Your task to perform on an android device: turn off location history Image 0: 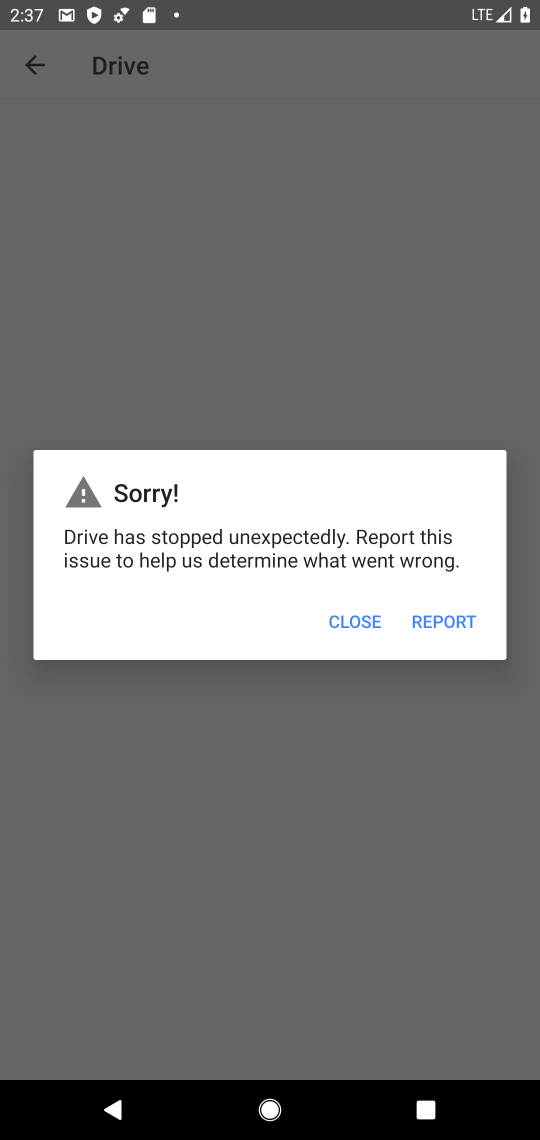
Step 0: click (444, 300)
Your task to perform on an android device: turn off location history Image 1: 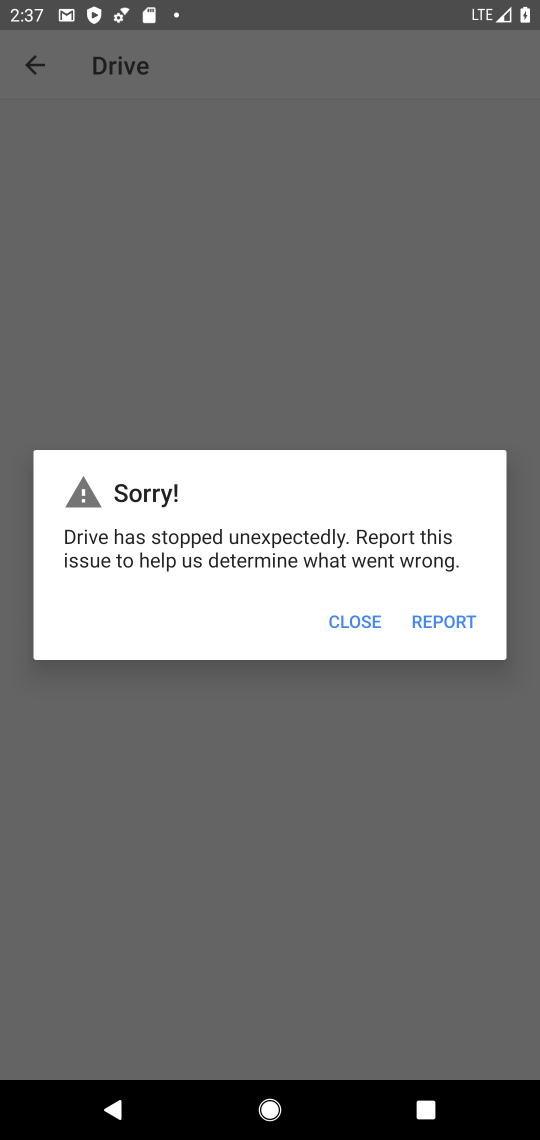
Step 1: click (335, 611)
Your task to perform on an android device: turn off location history Image 2: 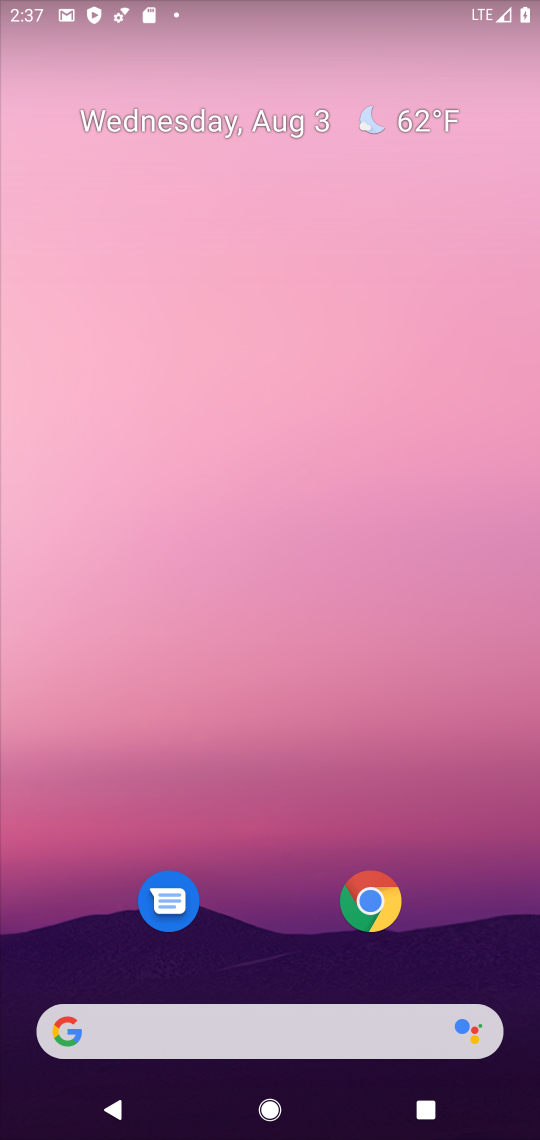
Step 2: drag from (283, 562) to (305, 77)
Your task to perform on an android device: turn off location history Image 3: 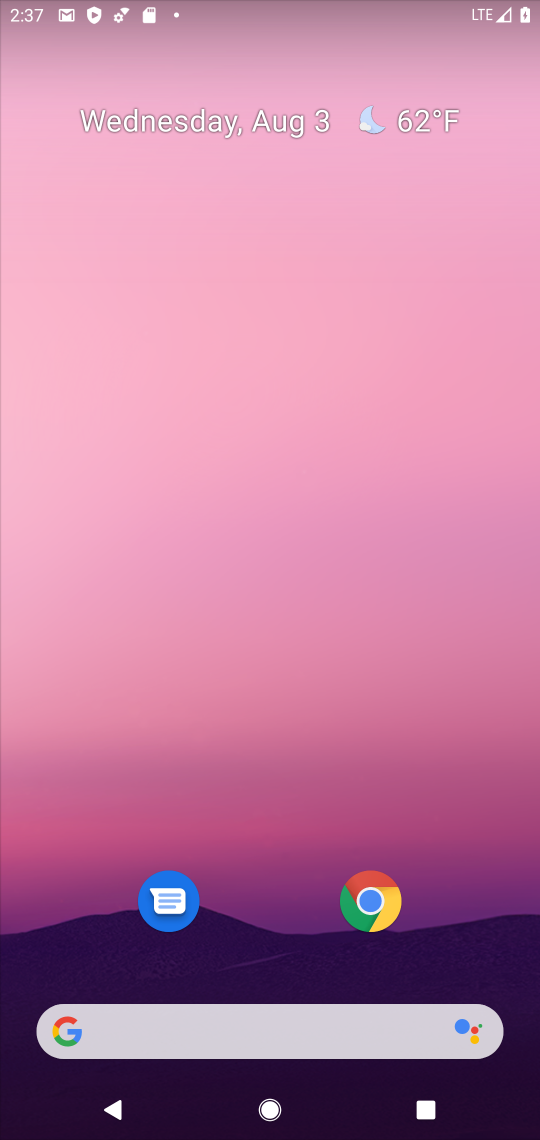
Step 3: drag from (259, 931) to (289, 110)
Your task to perform on an android device: turn off location history Image 4: 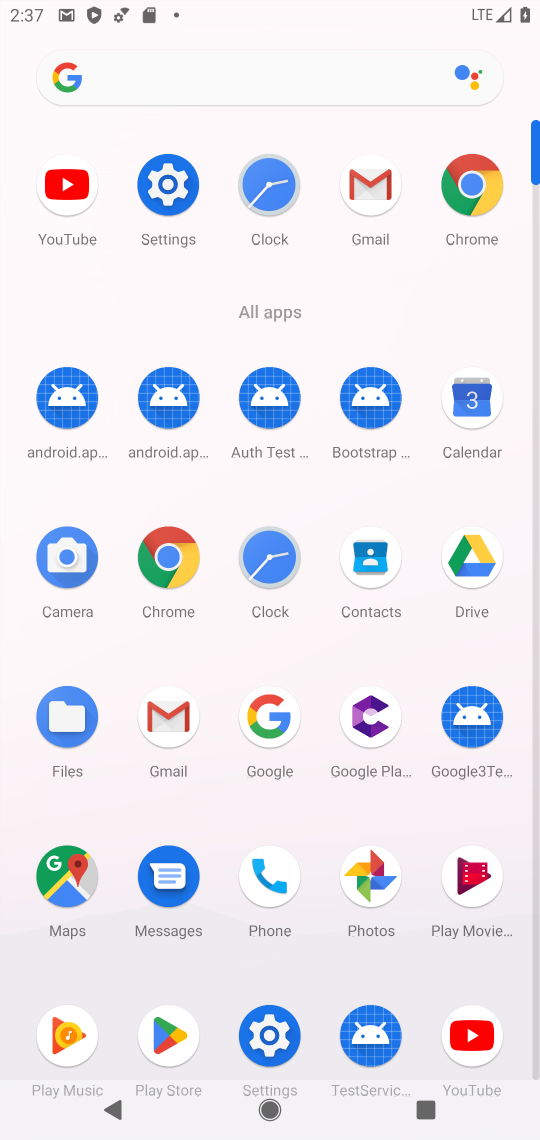
Step 4: click (161, 191)
Your task to perform on an android device: turn off location history Image 5: 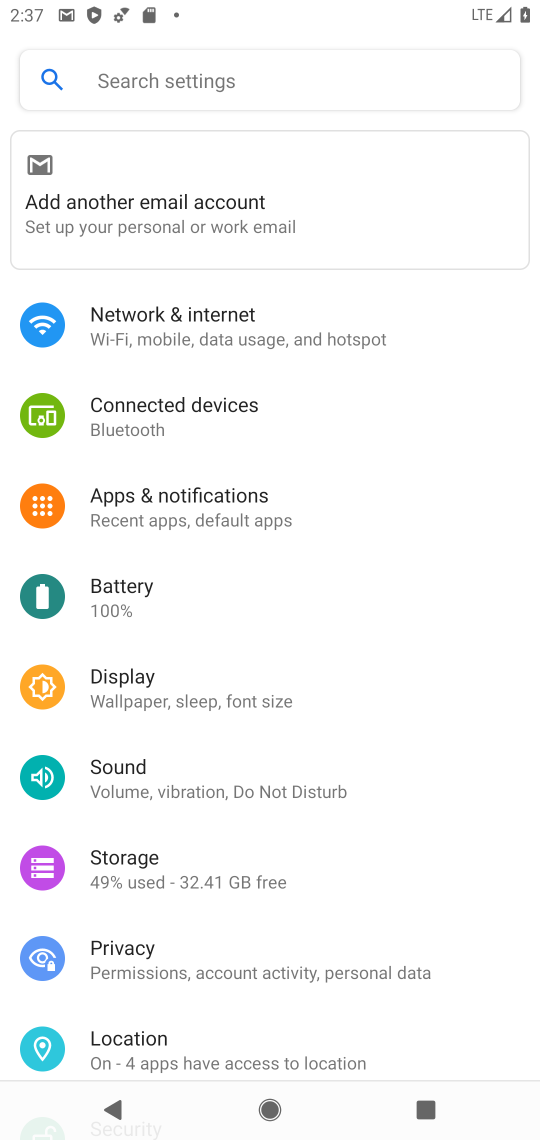
Step 5: click (163, 1028)
Your task to perform on an android device: turn off location history Image 6: 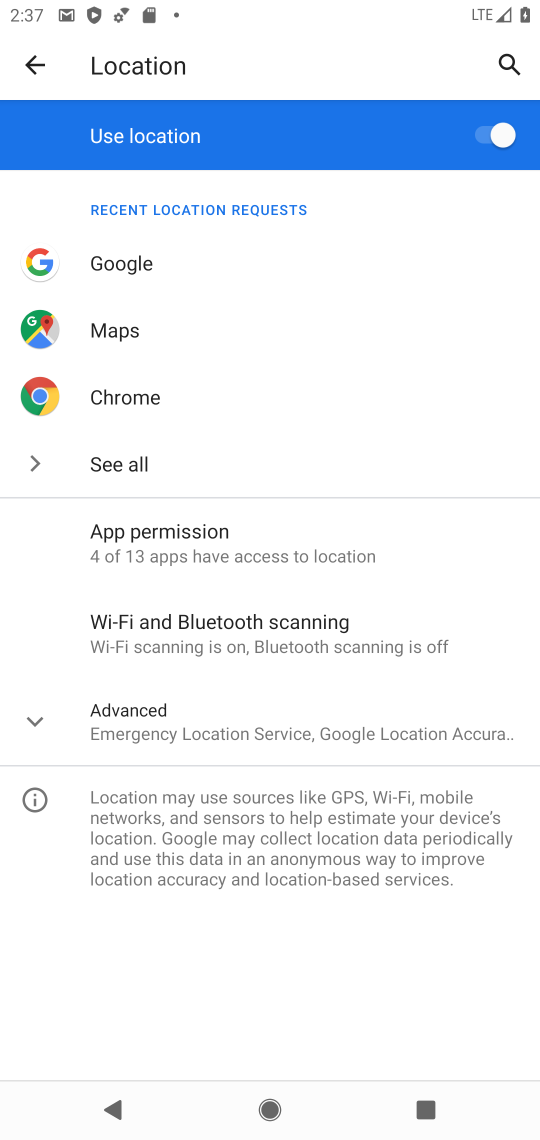
Step 6: click (137, 696)
Your task to perform on an android device: turn off location history Image 7: 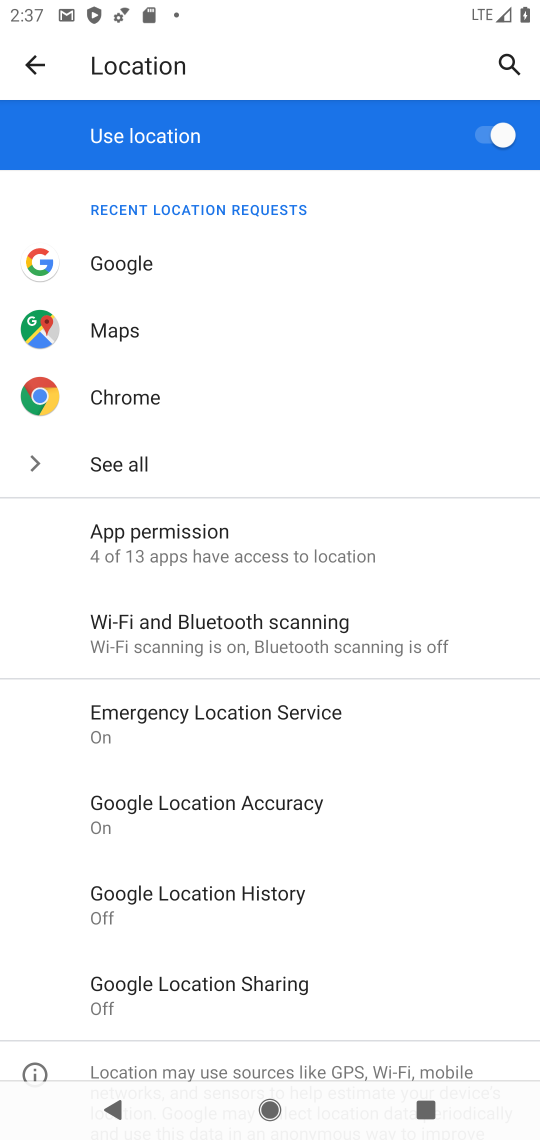
Step 7: click (202, 913)
Your task to perform on an android device: turn off location history Image 8: 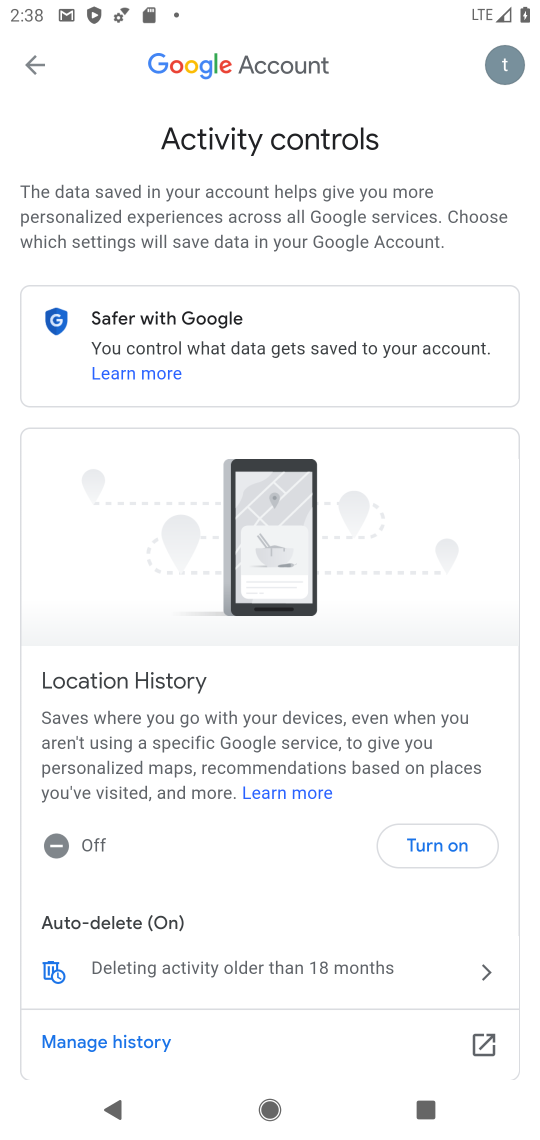
Step 8: task complete